Your task to perform on an android device: Go to location settings Image 0: 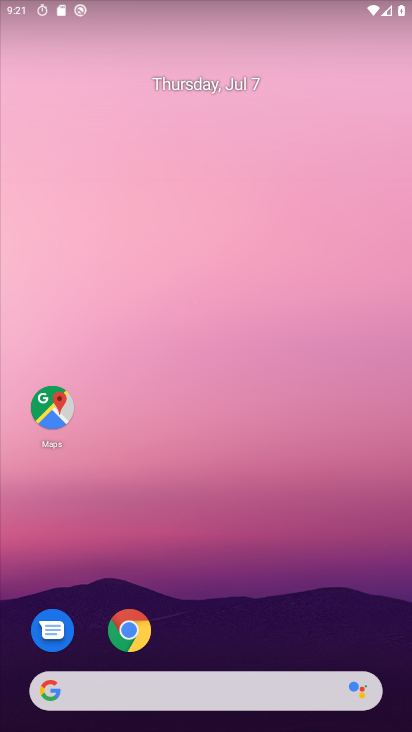
Step 0: drag from (31, 714) to (287, 3)
Your task to perform on an android device: Go to location settings Image 1: 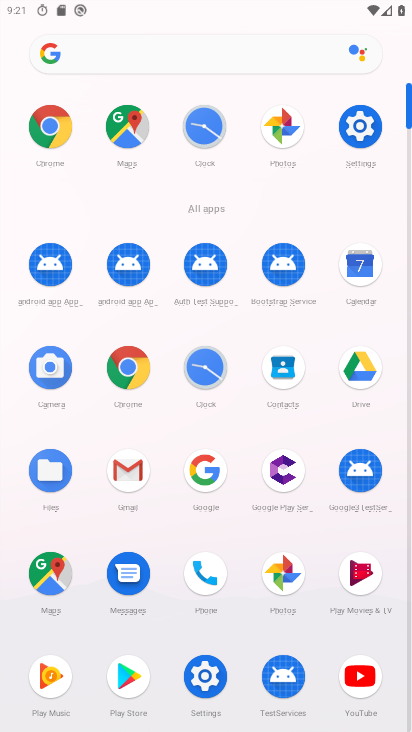
Step 1: click (204, 669)
Your task to perform on an android device: Go to location settings Image 2: 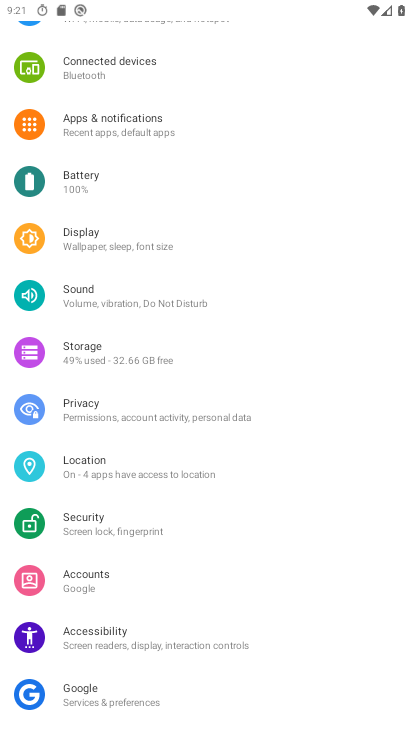
Step 2: click (95, 456)
Your task to perform on an android device: Go to location settings Image 3: 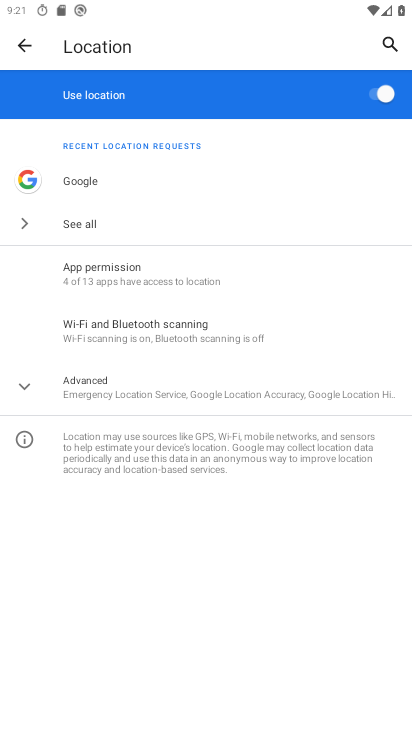
Step 3: task complete